Your task to perform on an android device: Go to wifi settings Image 0: 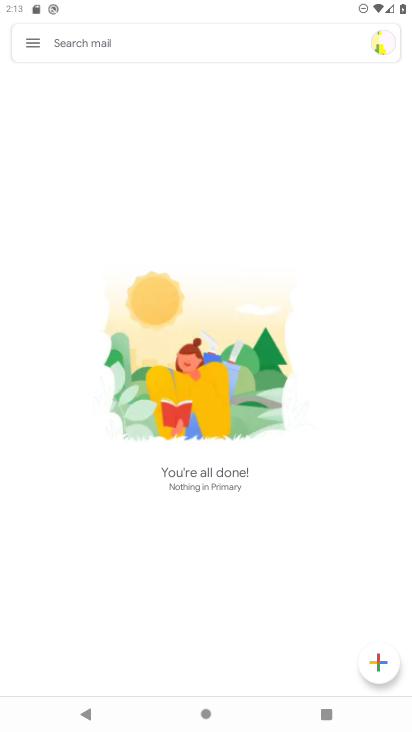
Step 0: click (203, 725)
Your task to perform on an android device: Go to wifi settings Image 1: 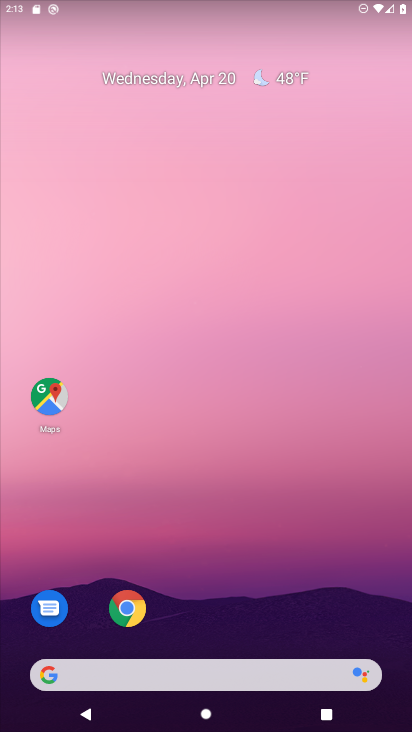
Step 1: drag from (251, 643) to (207, 257)
Your task to perform on an android device: Go to wifi settings Image 2: 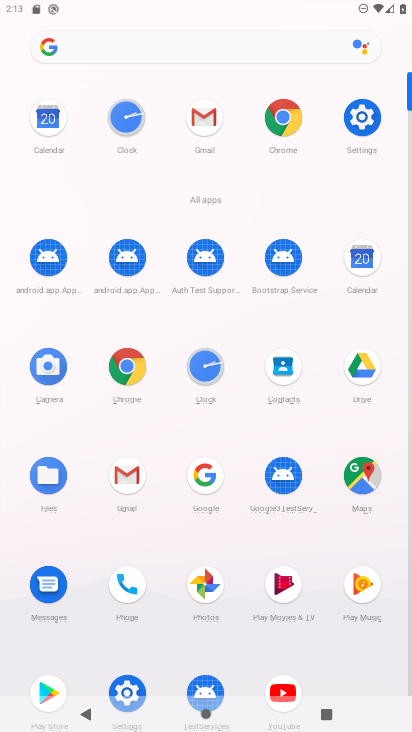
Step 2: click (362, 135)
Your task to perform on an android device: Go to wifi settings Image 3: 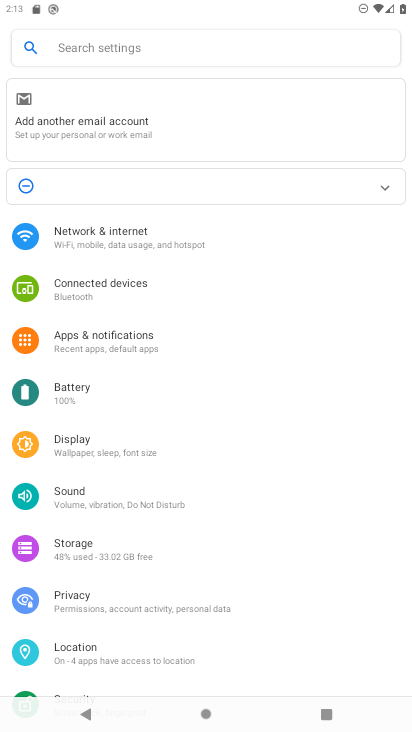
Step 3: click (204, 248)
Your task to perform on an android device: Go to wifi settings Image 4: 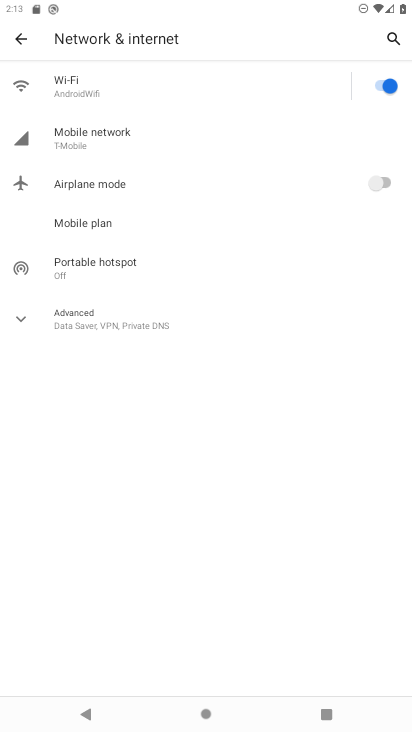
Step 4: click (184, 94)
Your task to perform on an android device: Go to wifi settings Image 5: 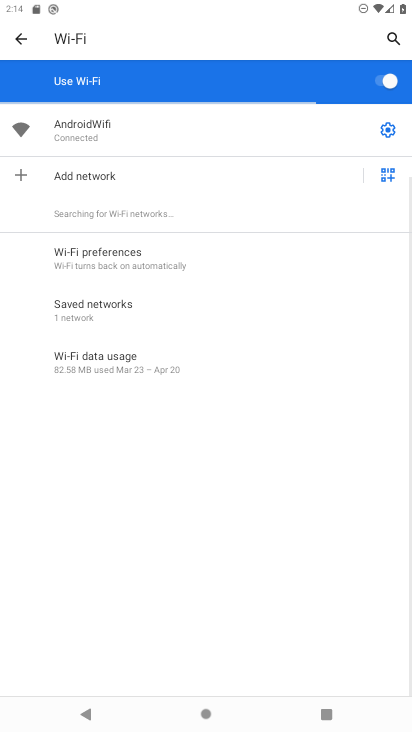
Step 5: task complete